Your task to perform on an android device: What's on my calendar tomorrow? Image 0: 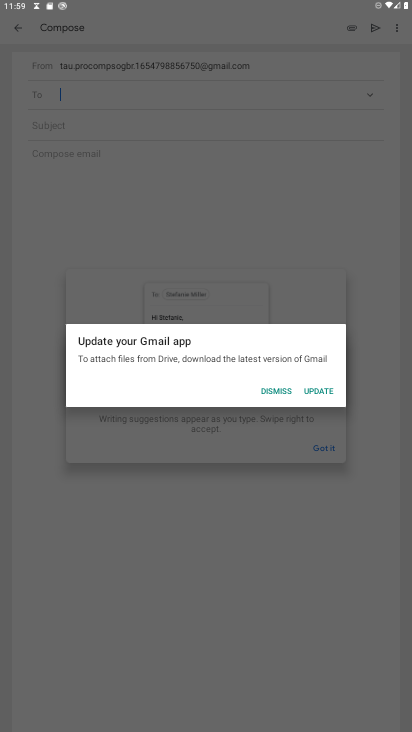
Step 0: press home button
Your task to perform on an android device: What's on my calendar tomorrow? Image 1: 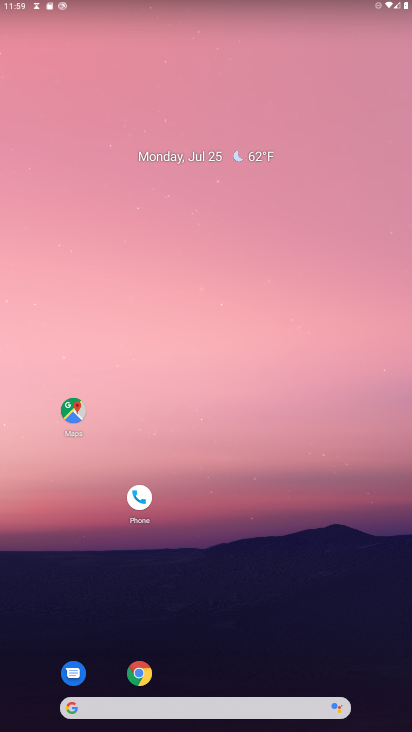
Step 1: drag from (291, 652) to (267, 154)
Your task to perform on an android device: What's on my calendar tomorrow? Image 2: 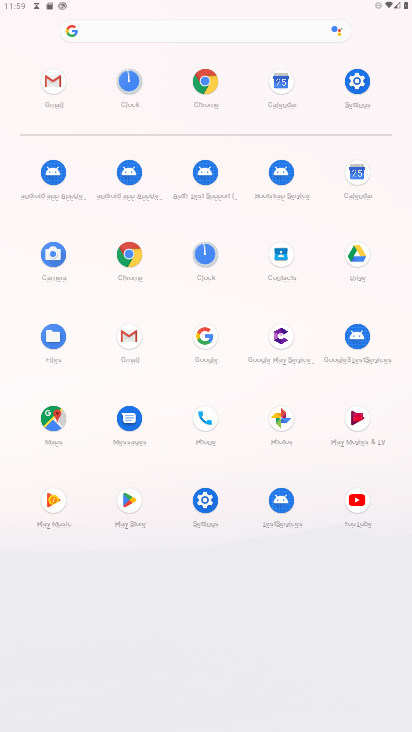
Step 2: click (362, 169)
Your task to perform on an android device: What's on my calendar tomorrow? Image 3: 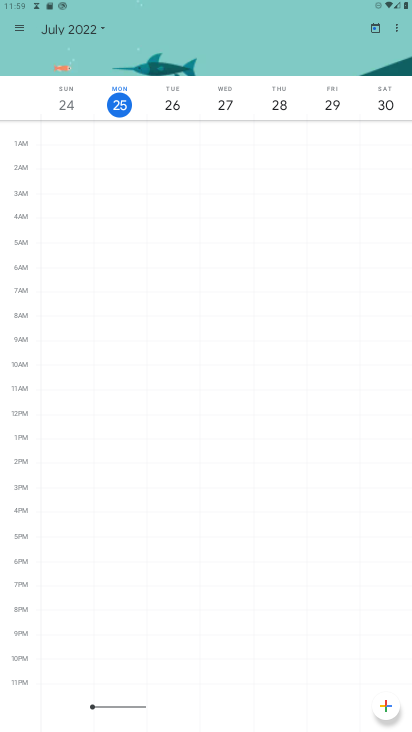
Step 3: click (168, 97)
Your task to perform on an android device: What's on my calendar tomorrow? Image 4: 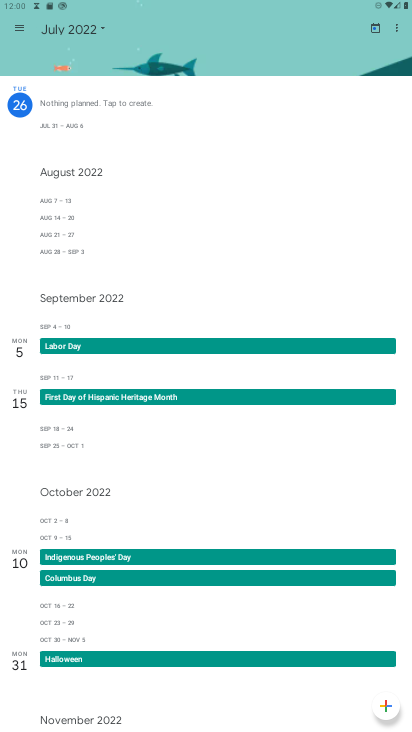
Step 4: task complete